Your task to perform on an android device: turn off javascript in the chrome app Image 0: 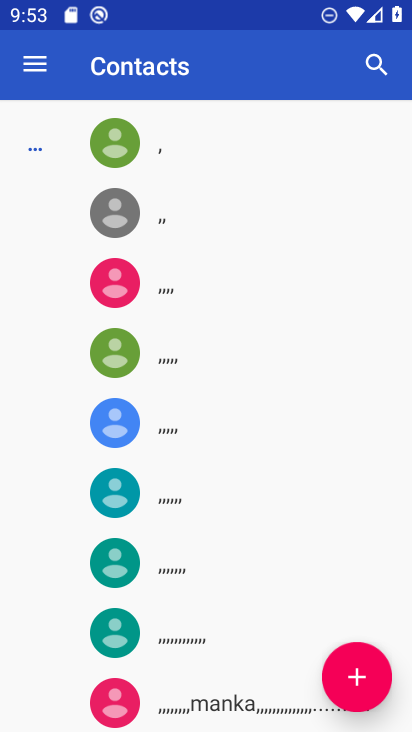
Step 0: press home button
Your task to perform on an android device: turn off javascript in the chrome app Image 1: 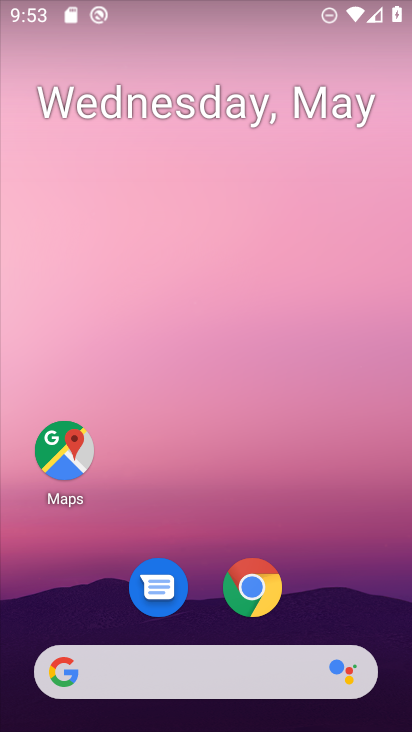
Step 1: click (257, 580)
Your task to perform on an android device: turn off javascript in the chrome app Image 2: 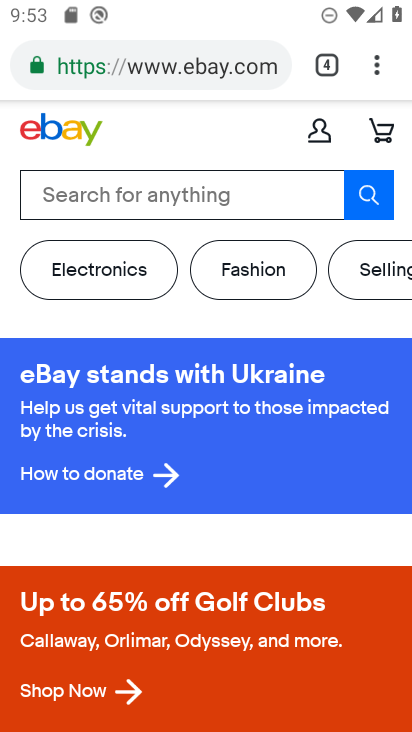
Step 2: click (377, 67)
Your task to perform on an android device: turn off javascript in the chrome app Image 3: 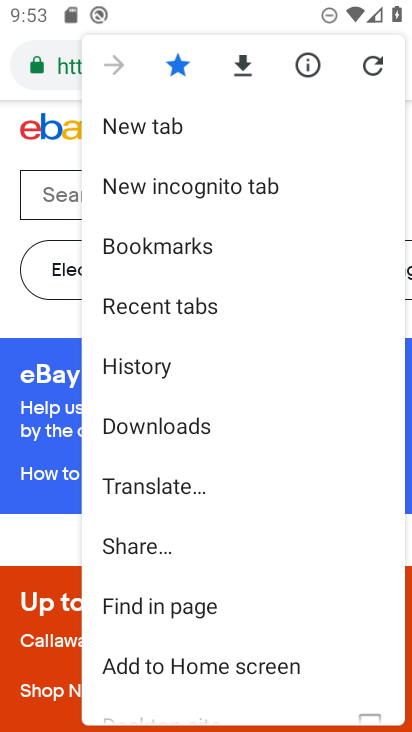
Step 3: drag from (277, 635) to (280, 181)
Your task to perform on an android device: turn off javascript in the chrome app Image 4: 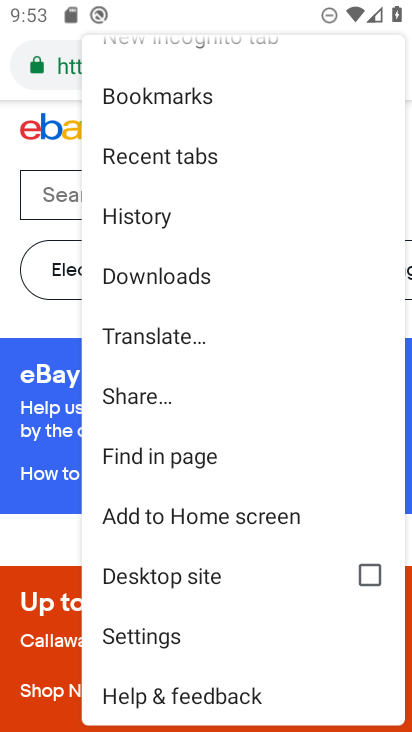
Step 4: click (142, 637)
Your task to perform on an android device: turn off javascript in the chrome app Image 5: 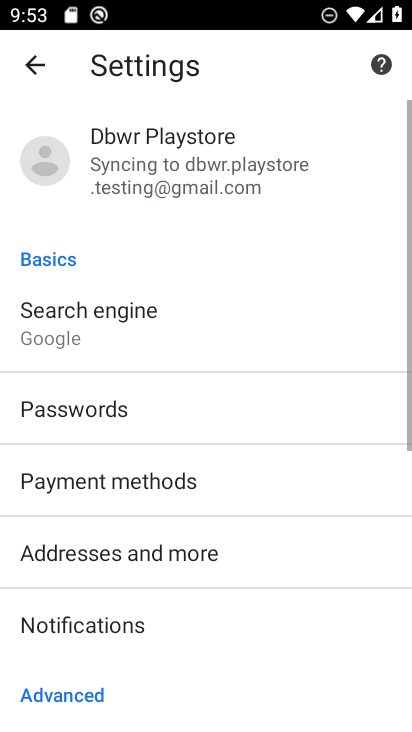
Step 5: drag from (175, 673) to (186, 297)
Your task to perform on an android device: turn off javascript in the chrome app Image 6: 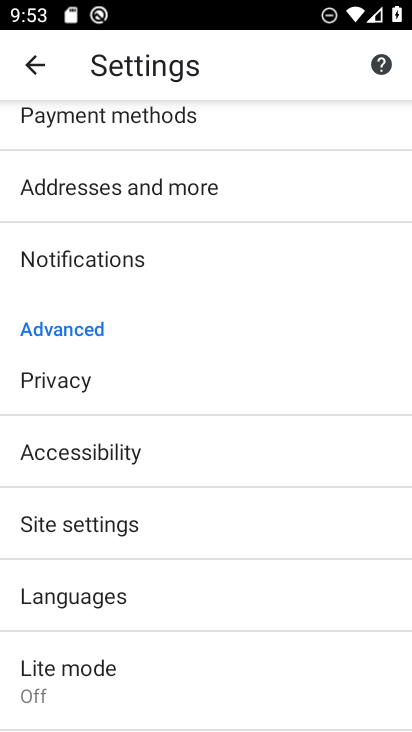
Step 6: click (114, 522)
Your task to perform on an android device: turn off javascript in the chrome app Image 7: 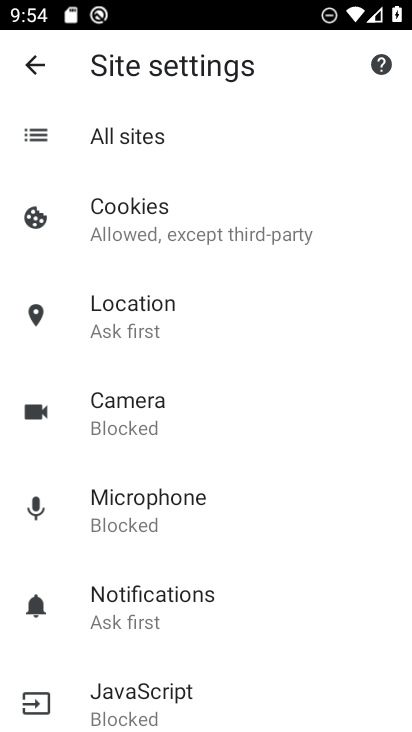
Step 7: click (111, 700)
Your task to perform on an android device: turn off javascript in the chrome app Image 8: 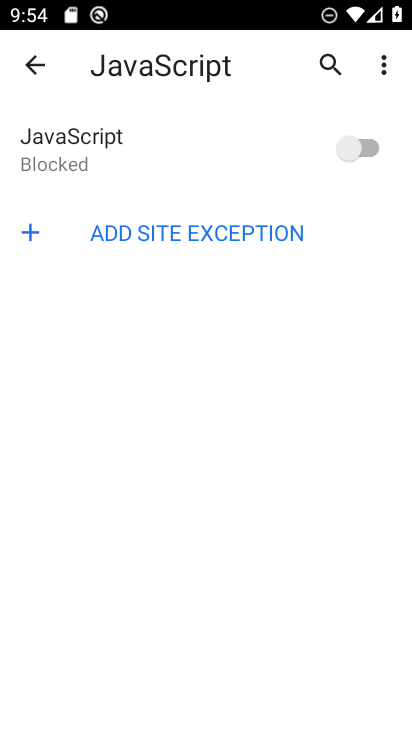
Step 8: task complete